Your task to perform on an android device: Check the weather Image 0: 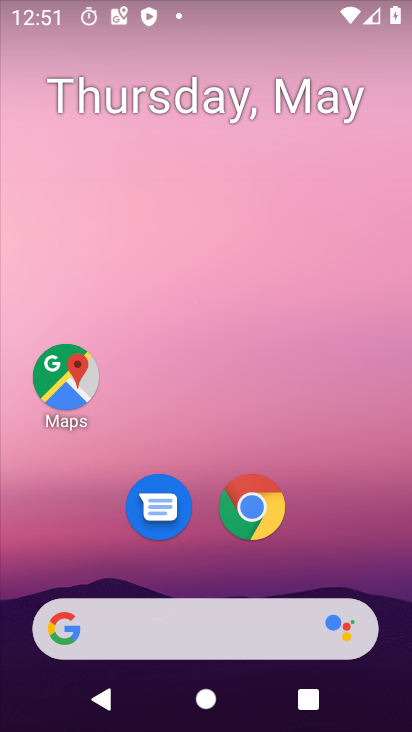
Step 0: drag from (302, 575) to (278, 9)
Your task to perform on an android device: Check the weather Image 1: 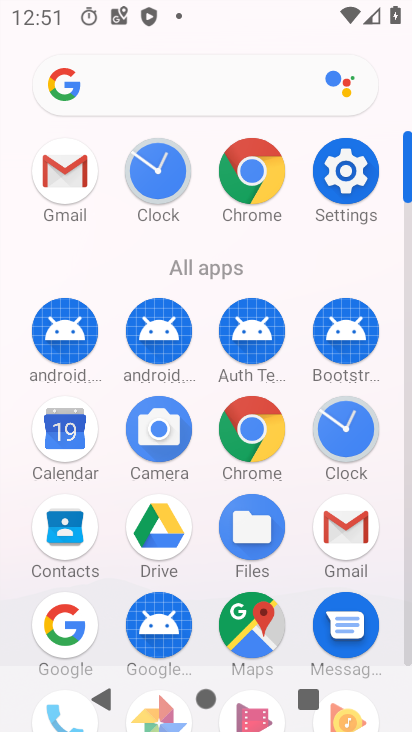
Step 1: click (64, 633)
Your task to perform on an android device: Check the weather Image 2: 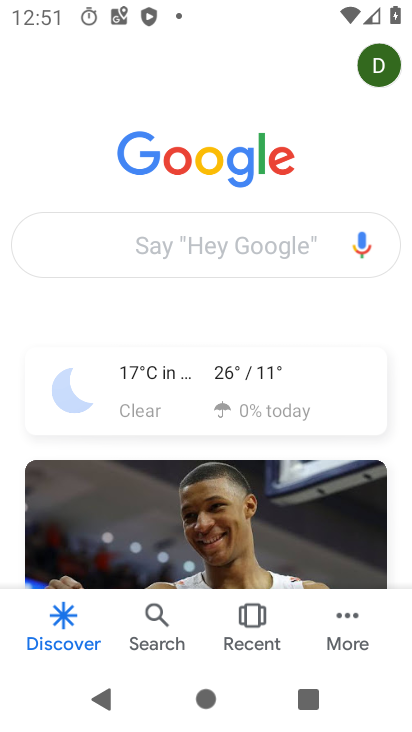
Step 2: click (228, 251)
Your task to perform on an android device: Check the weather Image 3: 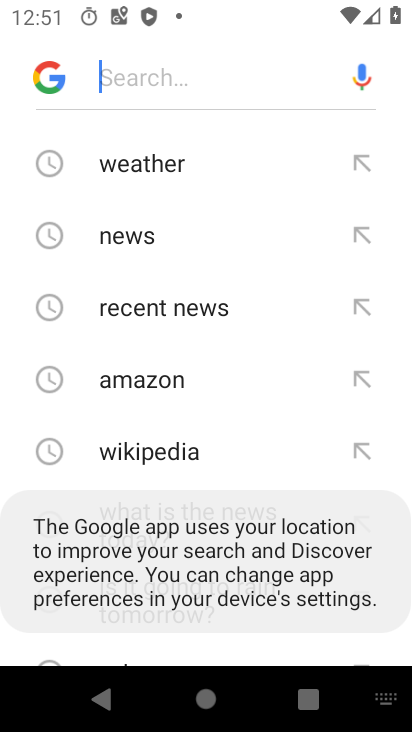
Step 3: click (112, 179)
Your task to perform on an android device: Check the weather Image 4: 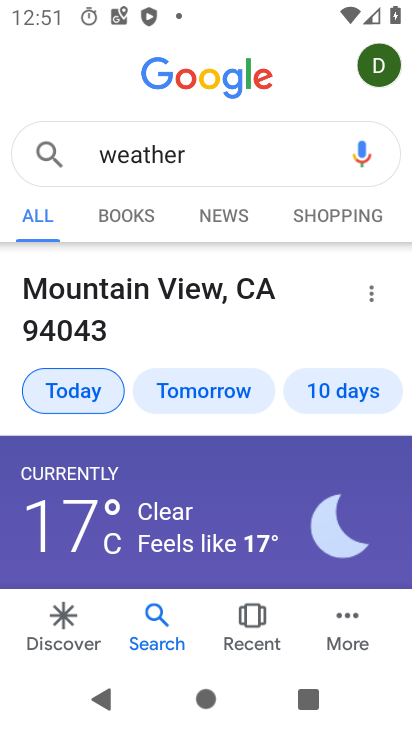
Step 4: task complete